Your task to perform on an android device: turn on data saver in the chrome app Image 0: 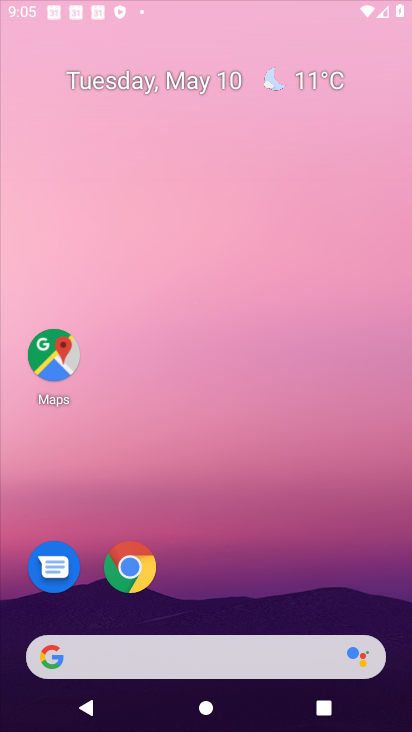
Step 0: drag from (125, 622) to (180, 276)
Your task to perform on an android device: turn on data saver in the chrome app Image 1: 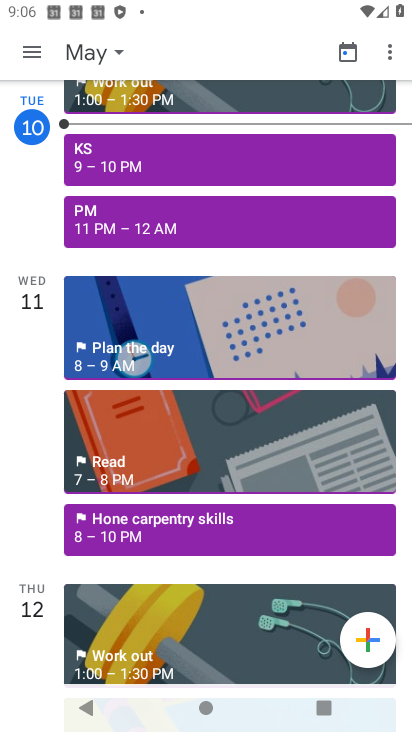
Step 1: press home button
Your task to perform on an android device: turn on data saver in the chrome app Image 2: 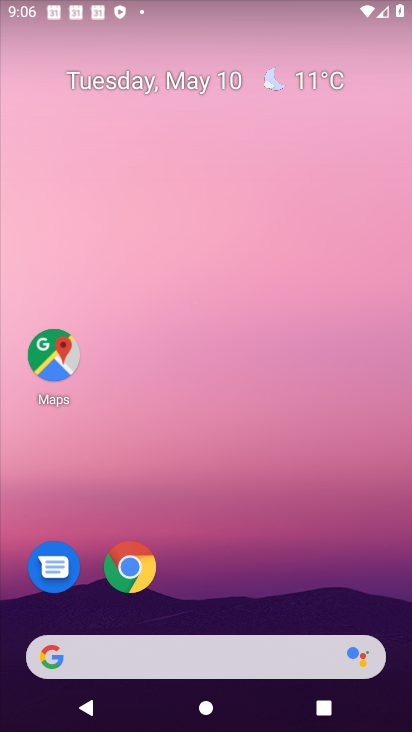
Step 2: click (142, 569)
Your task to perform on an android device: turn on data saver in the chrome app Image 3: 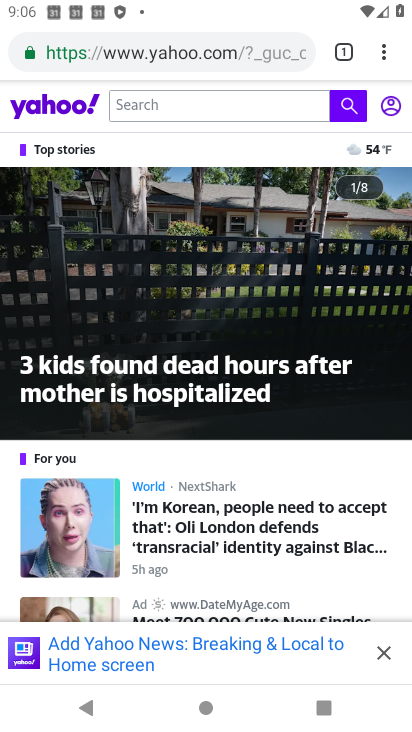
Step 3: click (383, 44)
Your task to perform on an android device: turn on data saver in the chrome app Image 4: 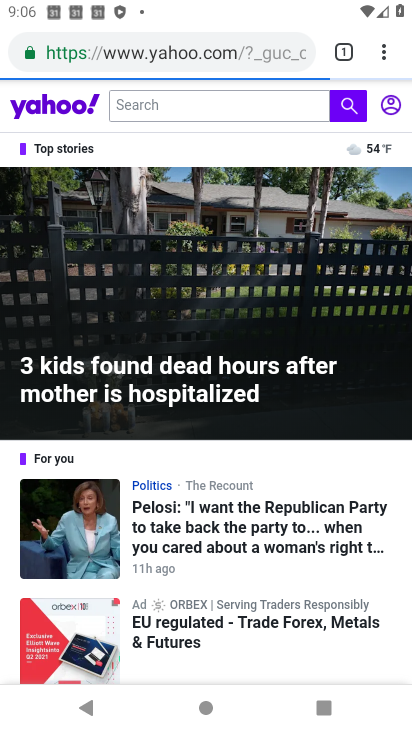
Step 4: click (387, 50)
Your task to perform on an android device: turn on data saver in the chrome app Image 5: 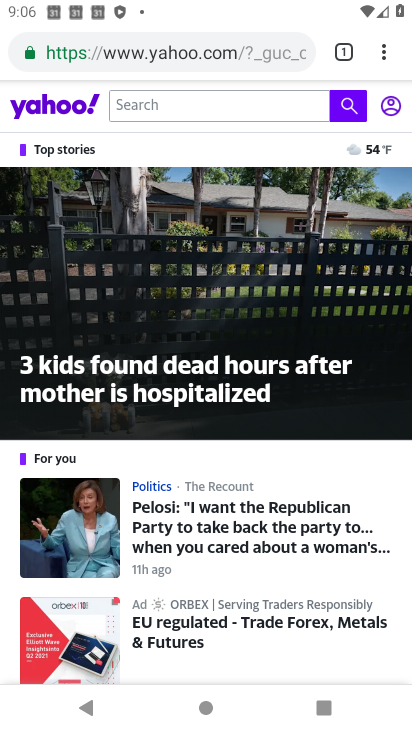
Step 5: click (387, 50)
Your task to perform on an android device: turn on data saver in the chrome app Image 6: 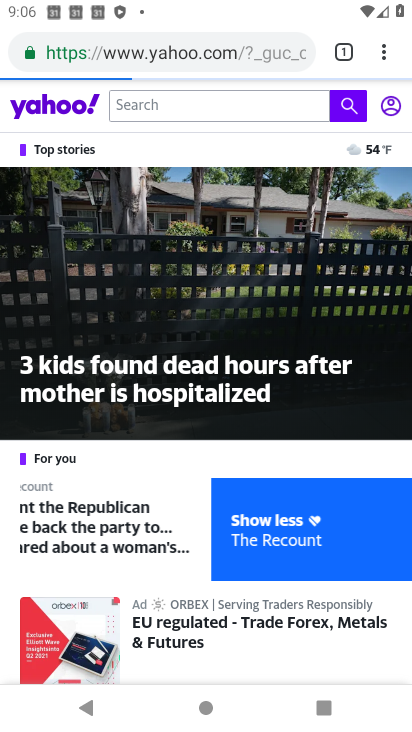
Step 6: click (384, 56)
Your task to perform on an android device: turn on data saver in the chrome app Image 7: 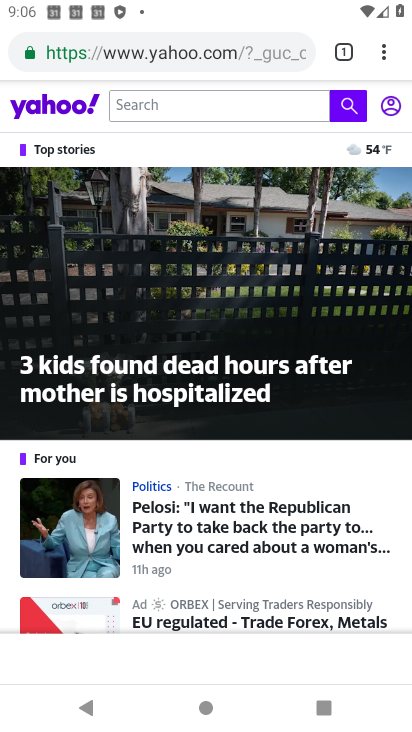
Step 7: click (383, 57)
Your task to perform on an android device: turn on data saver in the chrome app Image 8: 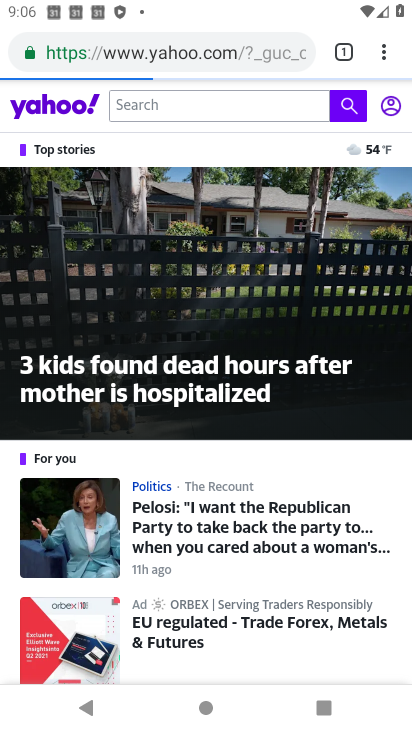
Step 8: click (373, 48)
Your task to perform on an android device: turn on data saver in the chrome app Image 9: 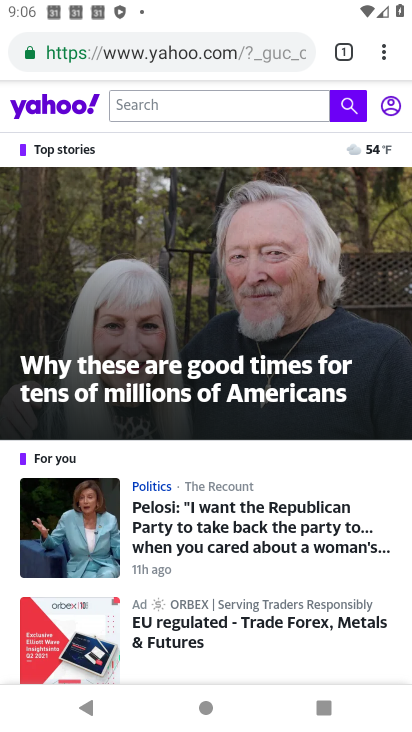
Step 9: click (385, 52)
Your task to perform on an android device: turn on data saver in the chrome app Image 10: 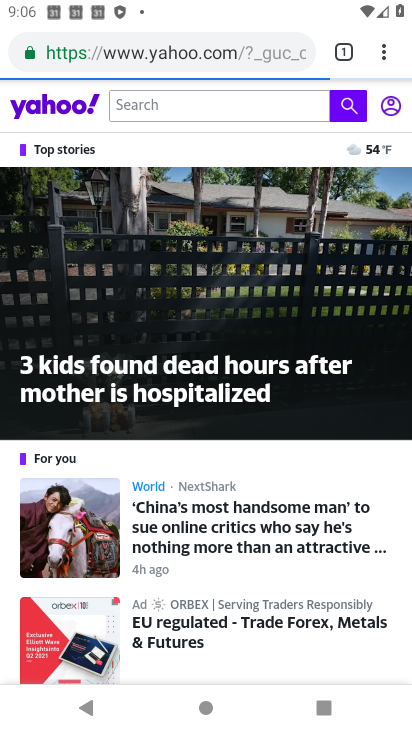
Step 10: click (394, 58)
Your task to perform on an android device: turn on data saver in the chrome app Image 11: 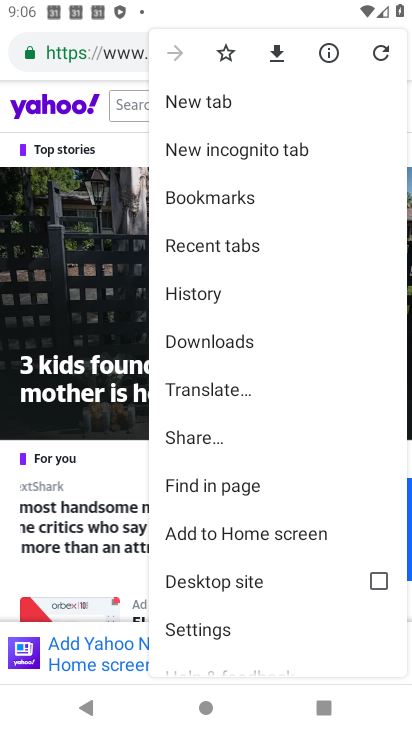
Step 11: click (204, 628)
Your task to perform on an android device: turn on data saver in the chrome app Image 12: 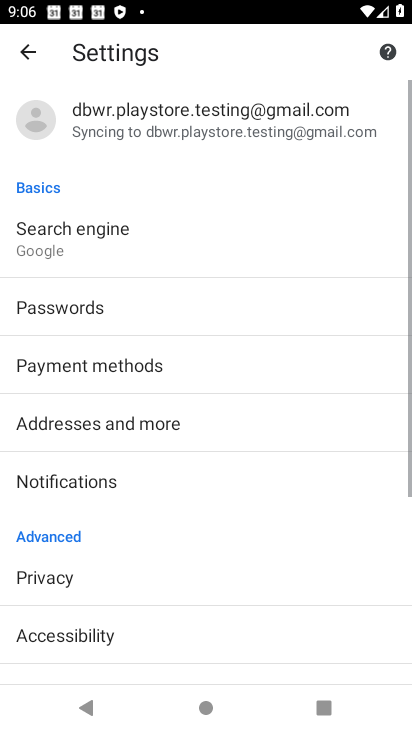
Step 12: drag from (171, 637) to (127, 340)
Your task to perform on an android device: turn on data saver in the chrome app Image 13: 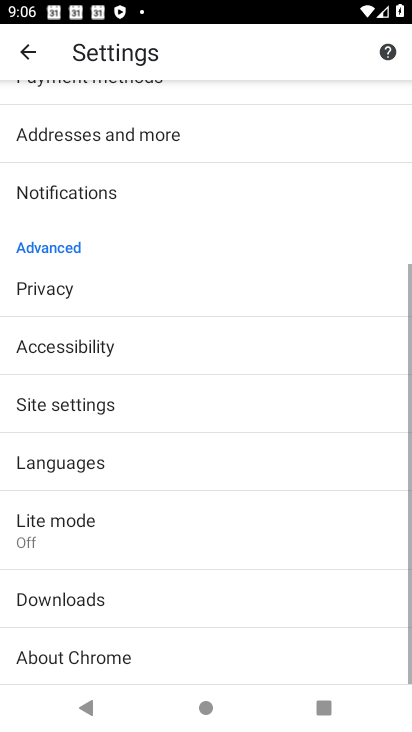
Step 13: click (38, 536)
Your task to perform on an android device: turn on data saver in the chrome app Image 14: 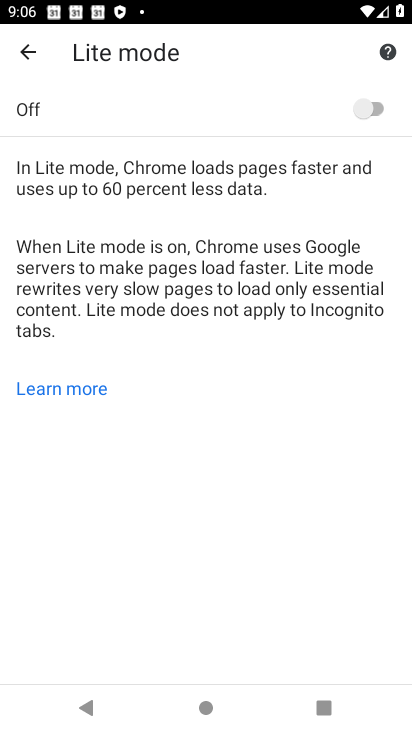
Step 14: click (369, 107)
Your task to perform on an android device: turn on data saver in the chrome app Image 15: 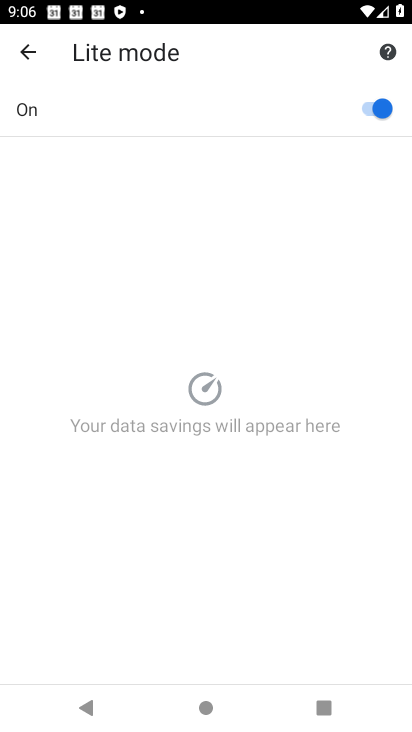
Step 15: task complete